Your task to perform on an android device: remove spam from my inbox in the gmail app Image 0: 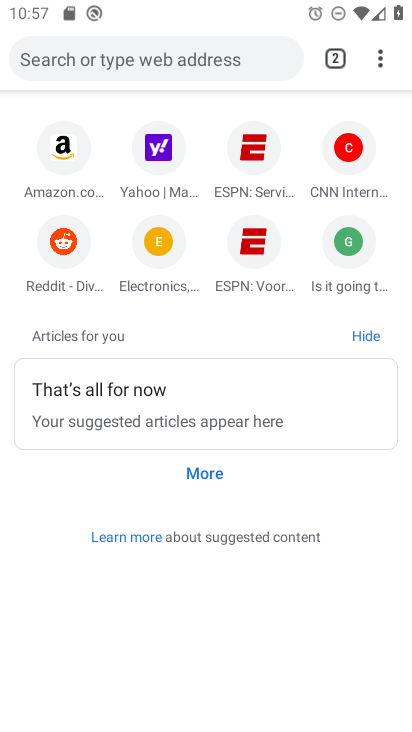
Step 0: press home button
Your task to perform on an android device: remove spam from my inbox in the gmail app Image 1: 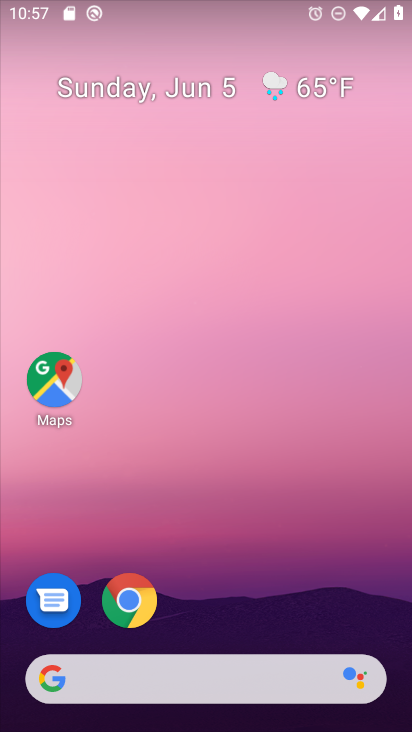
Step 1: drag from (334, 512) to (201, 71)
Your task to perform on an android device: remove spam from my inbox in the gmail app Image 2: 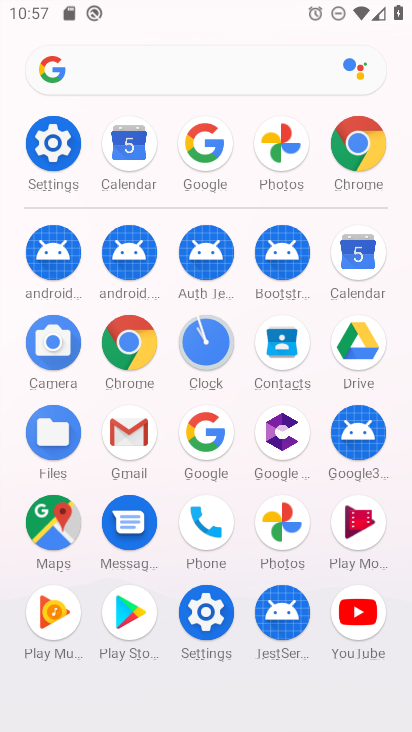
Step 2: click (143, 455)
Your task to perform on an android device: remove spam from my inbox in the gmail app Image 3: 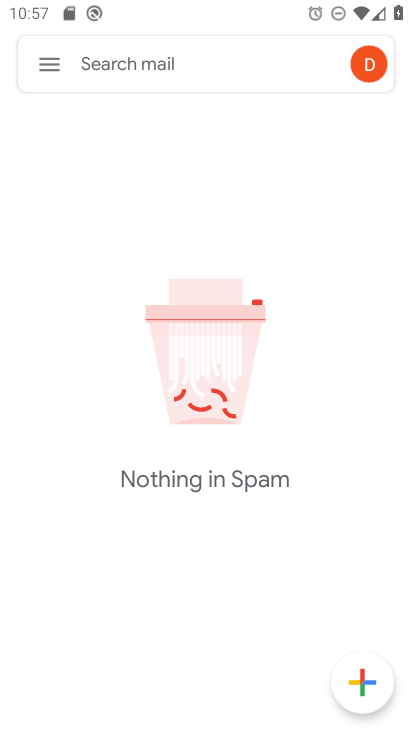
Step 3: click (51, 65)
Your task to perform on an android device: remove spam from my inbox in the gmail app Image 4: 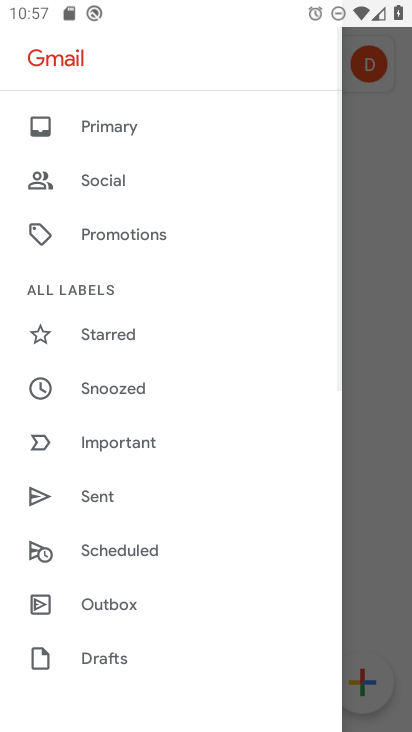
Step 4: click (139, 119)
Your task to perform on an android device: remove spam from my inbox in the gmail app Image 5: 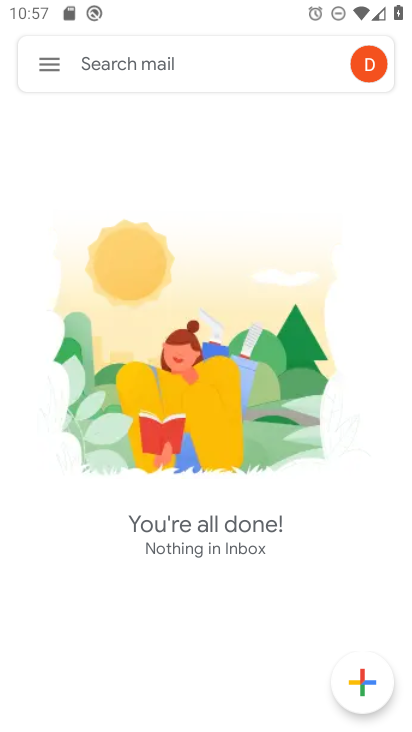
Step 5: task complete